Your task to perform on an android device: open app "Cash App" (install if not already installed) Image 0: 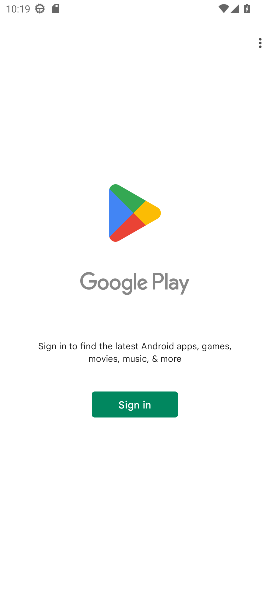
Step 0: drag from (138, 452) to (174, 115)
Your task to perform on an android device: open app "Cash App" (install if not already installed) Image 1: 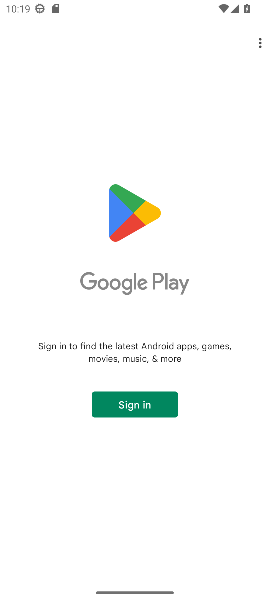
Step 1: press home button
Your task to perform on an android device: open app "Cash App" (install if not already installed) Image 2: 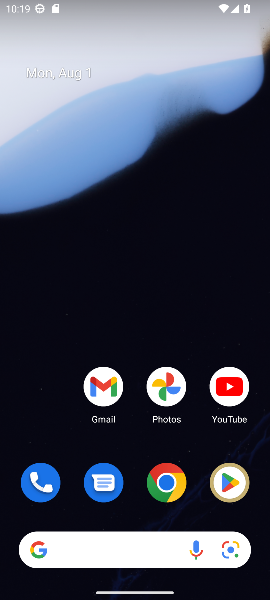
Step 2: drag from (142, 482) to (151, 143)
Your task to perform on an android device: open app "Cash App" (install if not already installed) Image 3: 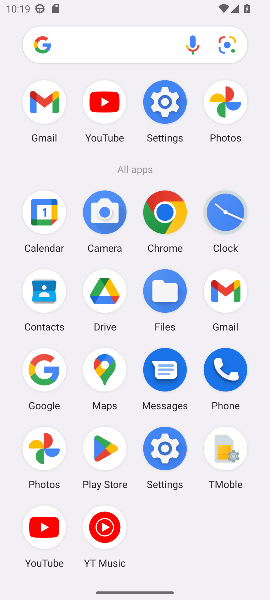
Step 3: click (114, 449)
Your task to perform on an android device: open app "Cash App" (install if not already installed) Image 4: 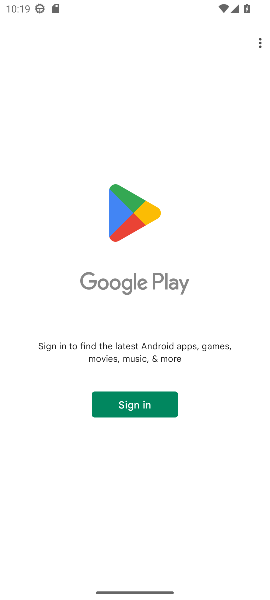
Step 4: click (134, 411)
Your task to perform on an android device: open app "Cash App" (install if not already installed) Image 5: 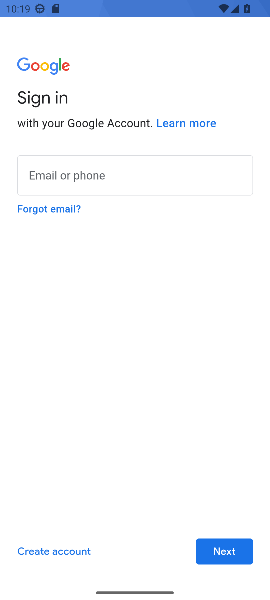
Step 5: task complete